Your task to perform on an android device: Open Google Chrome Image 0: 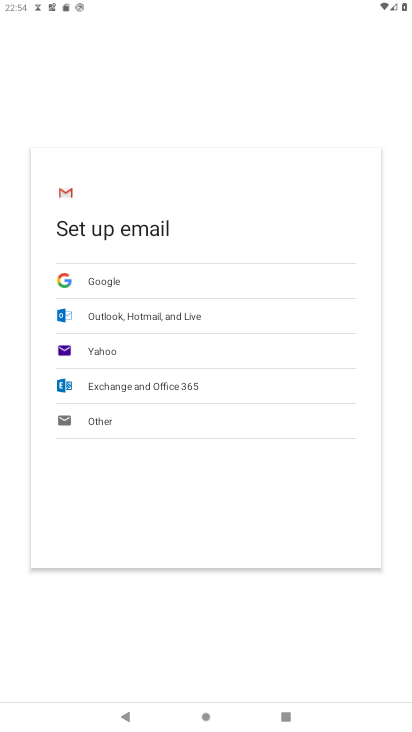
Step 0: press home button
Your task to perform on an android device: Open Google Chrome Image 1: 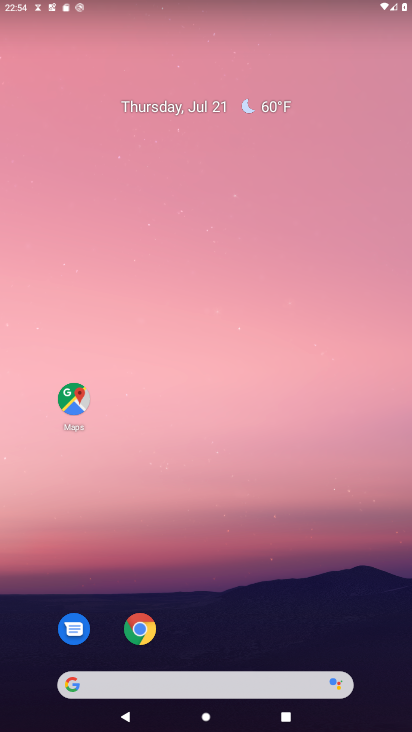
Step 1: drag from (198, 630) to (269, 201)
Your task to perform on an android device: Open Google Chrome Image 2: 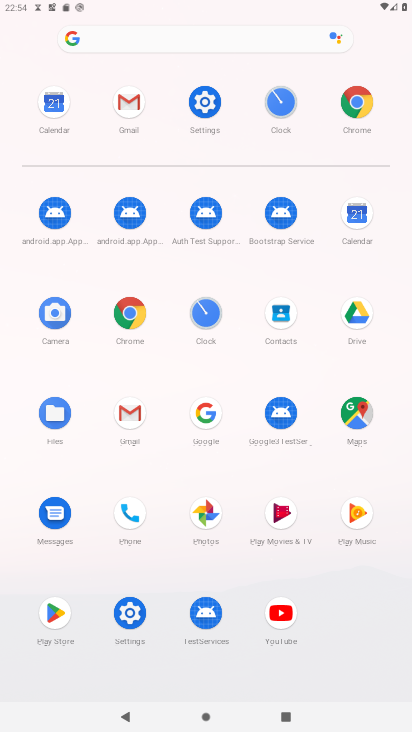
Step 2: click (205, 406)
Your task to perform on an android device: Open Google Chrome Image 3: 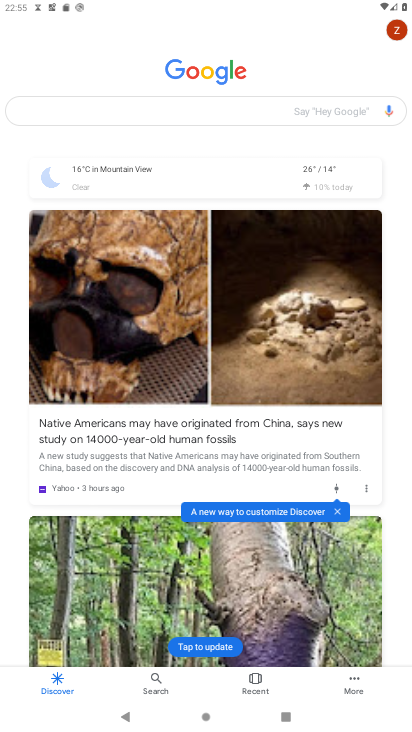
Step 3: task complete